Your task to perform on an android device: toggle location history Image 0: 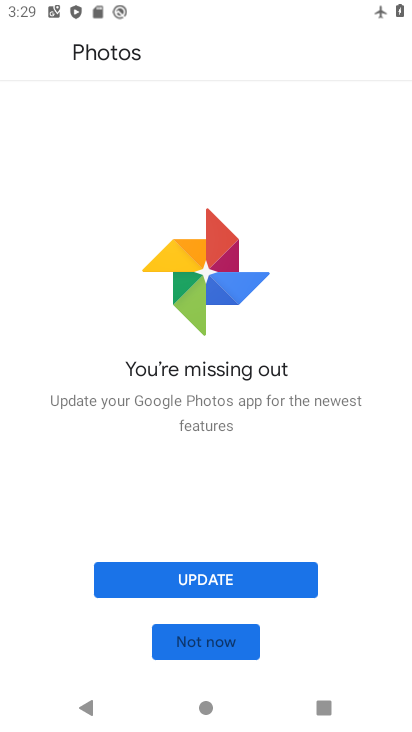
Step 0: press home button
Your task to perform on an android device: toggle location history Image 1: 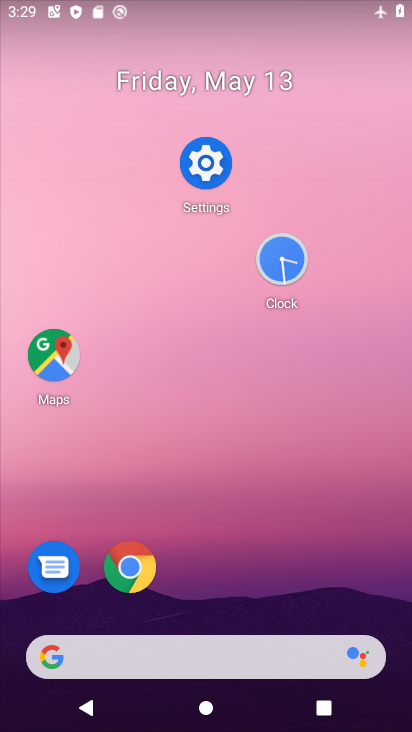
Step 1: drag from (307, 559) to (210, 71)
Your task to perform on an android device: toggle location history Image 2: 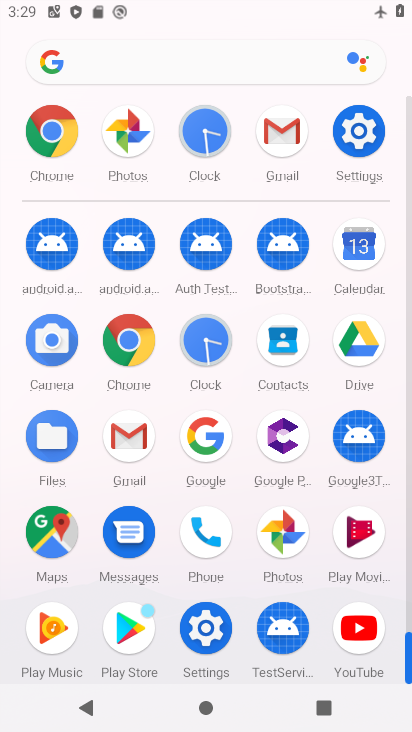
Step 2: click (360, 135)
Your task to perform on an android device: toggle location history Image 3: 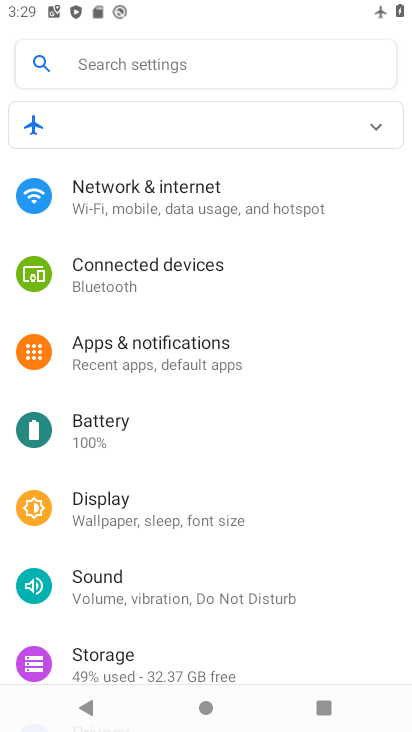
Step 3: click (354, 130)
Your task to perform on an android device: toggle location history Image 4: 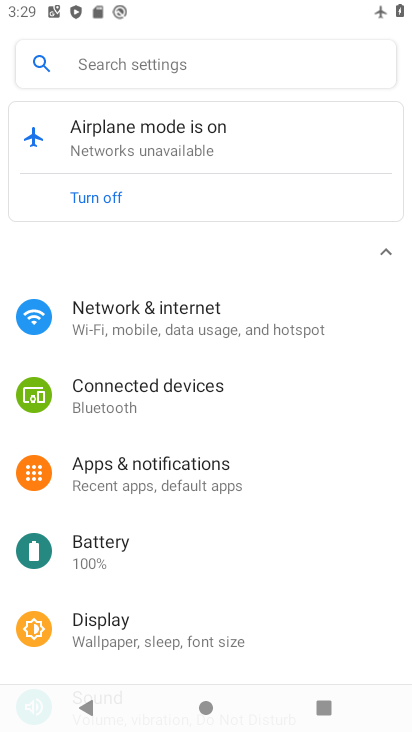
Step 4: drag from (265, 608) to (303, 264)
Your task to perform on an android device: toggle location history Image 5: 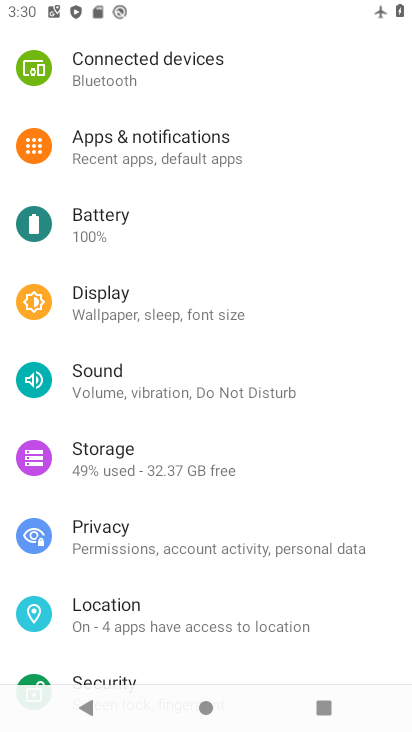
Step 5: drag from (235, 600) to (299, 257)
Your task to perform on an android device: toggle location history Image 6: 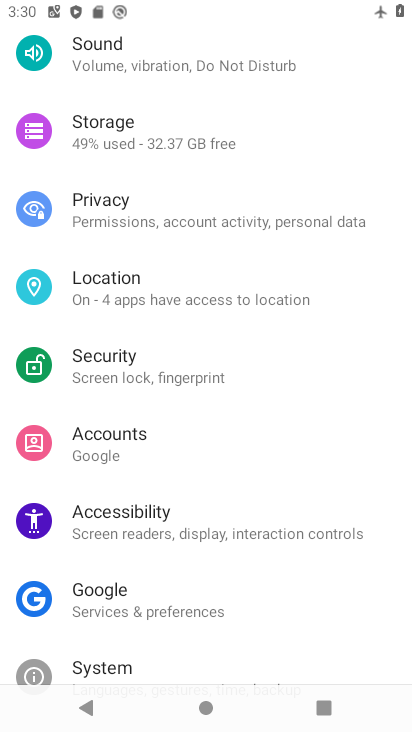
Step 6: click (191, 312)
Your task to perform on an android device: toggle location history Image 7: 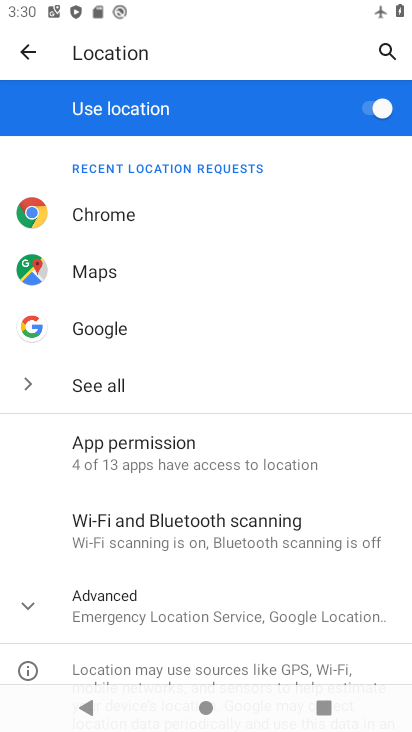
Step 7: click (128, 606)
Your task to perform on an android device: toggle location history Image 8: 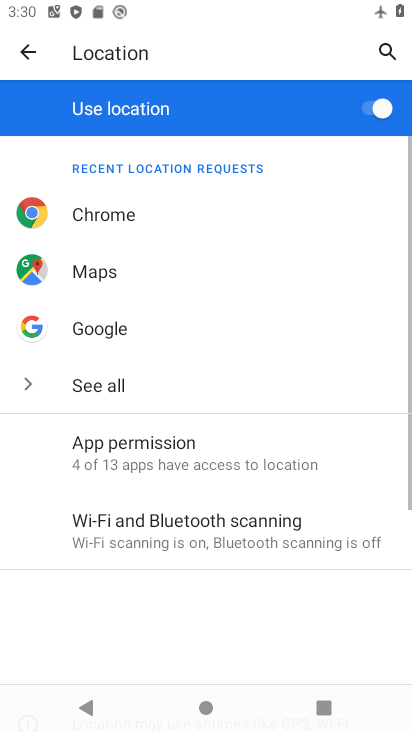
Step 8: drag from (237, 525) to (290, 258)
Your task to perform on an android device: toggle location history Image 9: 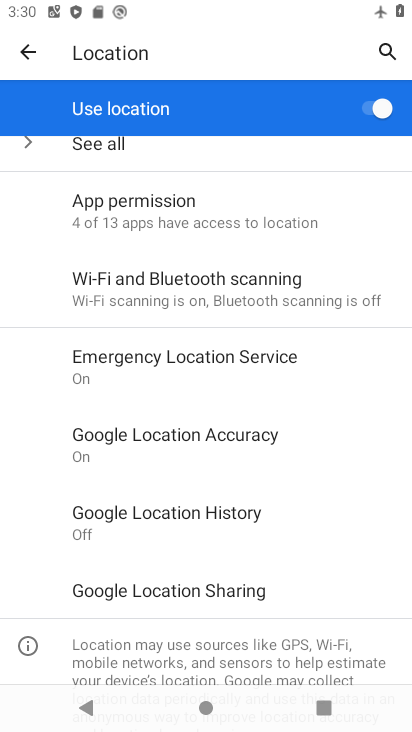
Step 9: click (270, 512)
Your task to perform on an android device: toggle location history Image 10: 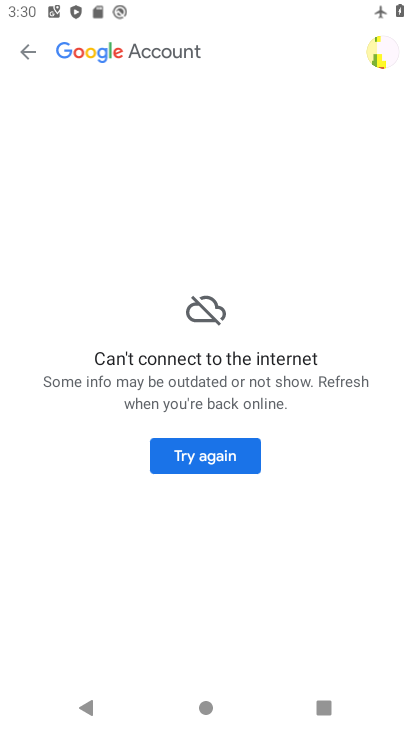
Step 10: task complete